Your task to perform on an android device: uninstall "Upside-Cash back on gas & food" Image 0: 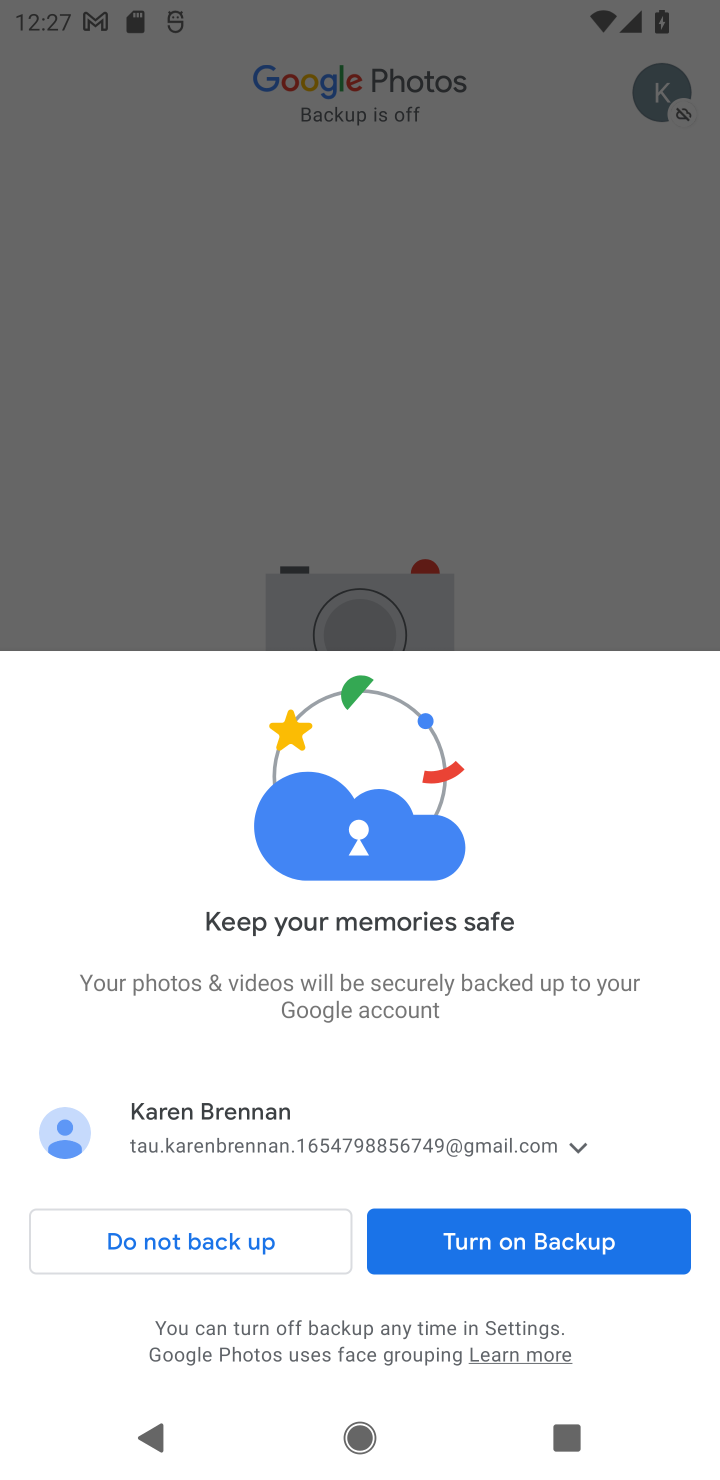
Step 0: press home button
Your task to perform on an android device: uninstall "Upside-Cash back on gas & food" Image 1: 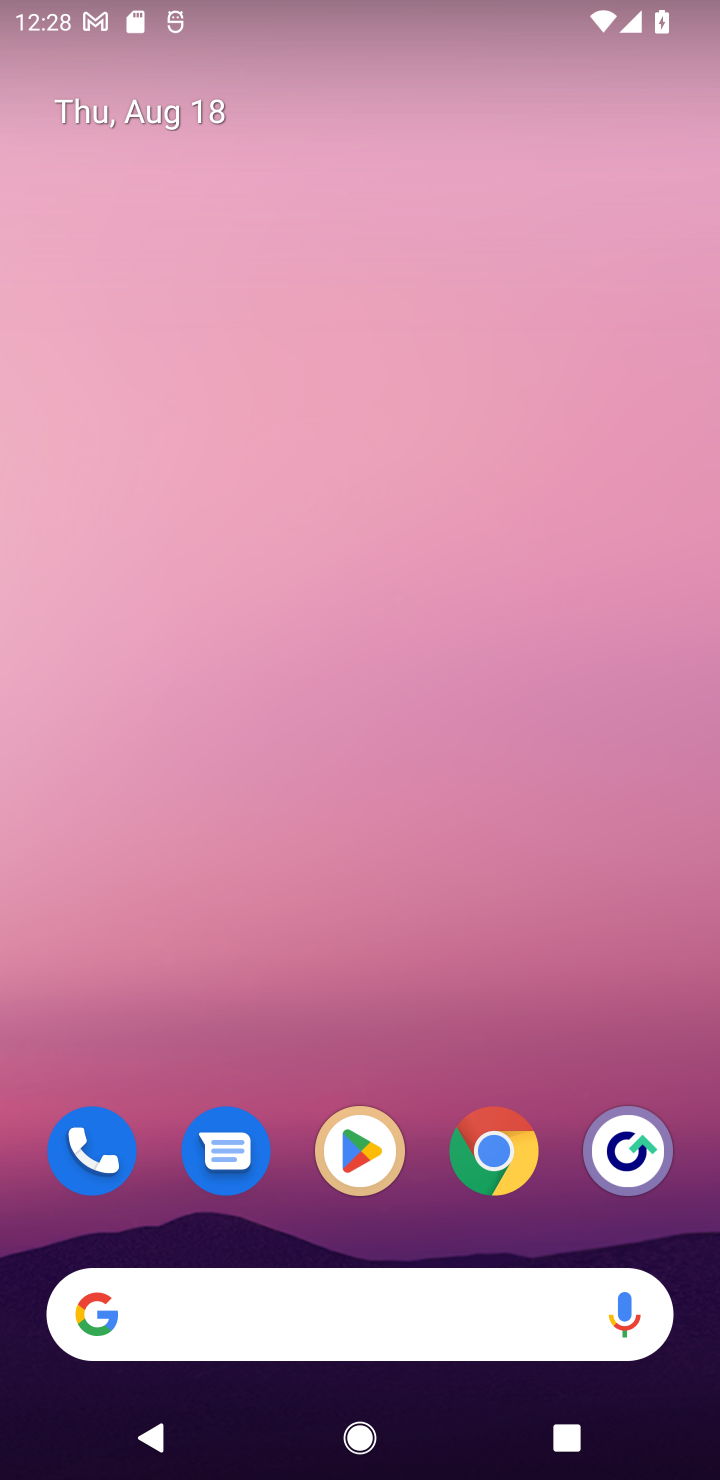
Step 1: click (362, 1160)
Your task to perform on an android device: uninstall "Upside-Cash back on gas & food" Image 2: 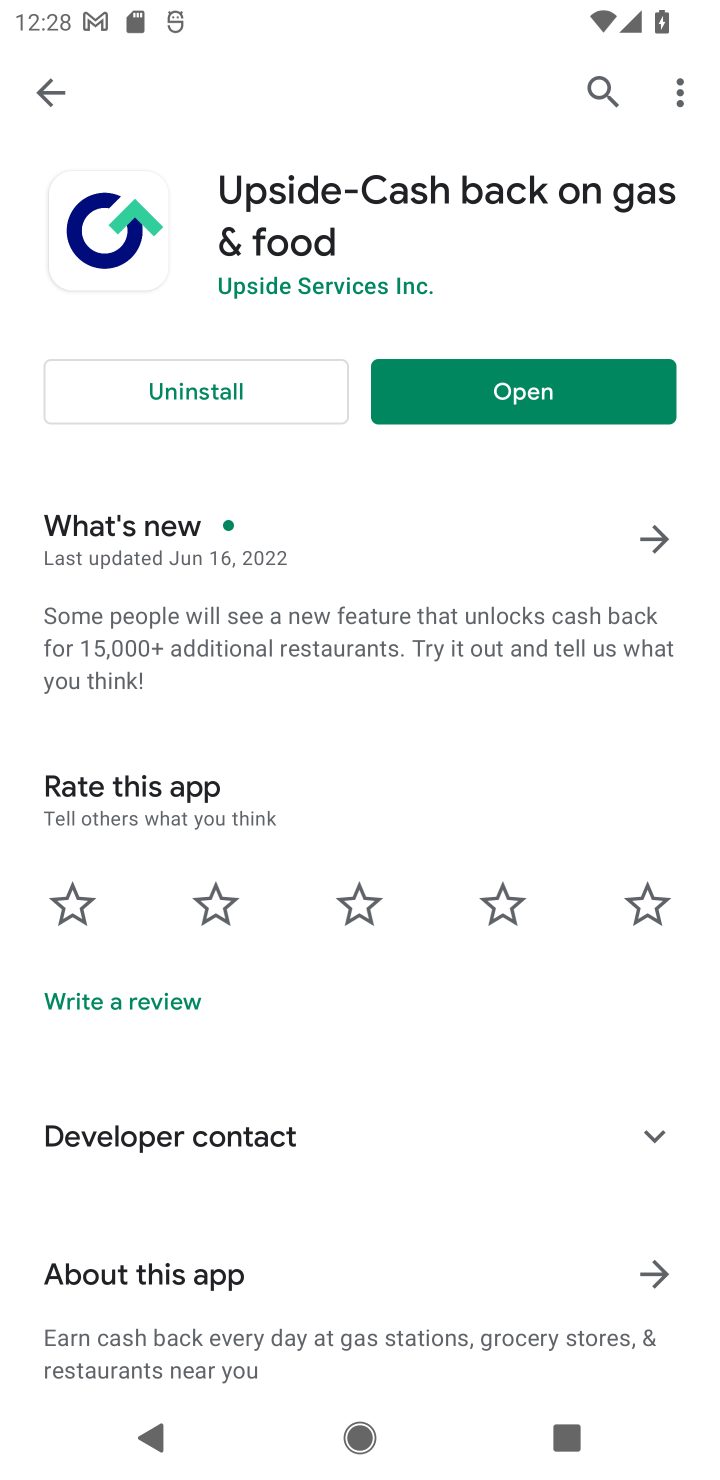
Step 2: click (46, 92)
Your task to perform on an android device: uninstall "Upside-Cash back on gas & food" Image 3: 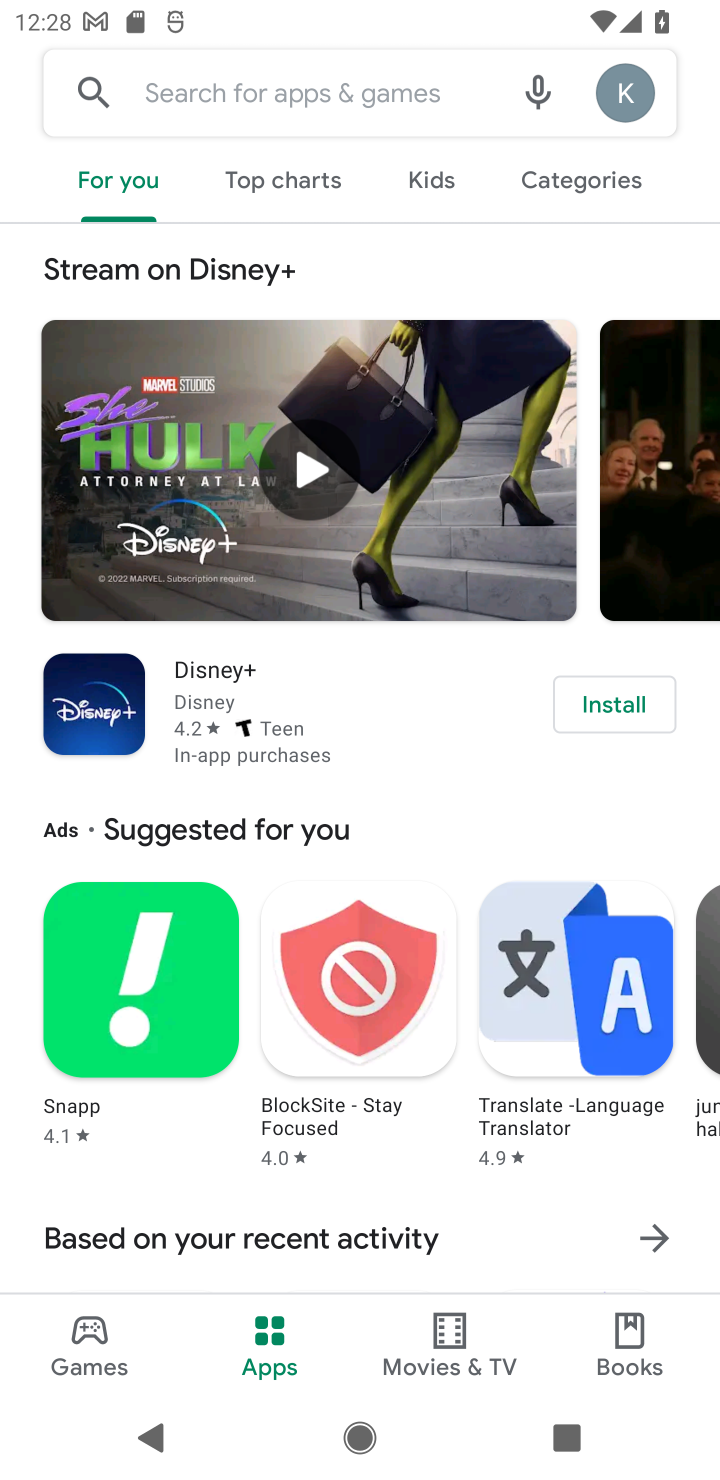
Step 3: click (286, 97)
Your task to perform on an android device: uninstall "Upside-Cash back on gas & food" Image 4: 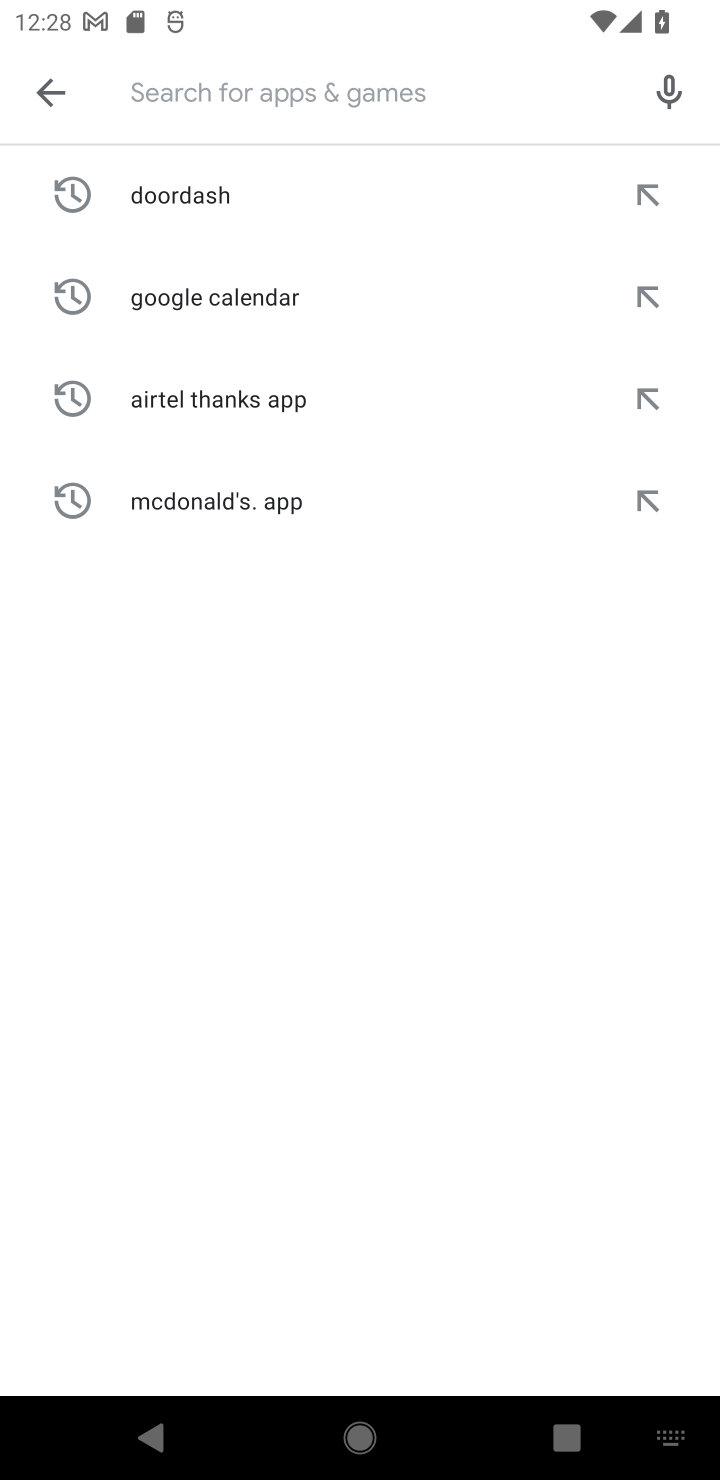
Step 4: type "Upside-Cash back on gas & food"
Your task to perform on an android device: uninstall "Upside-Cash back on gas & food" Image 5: 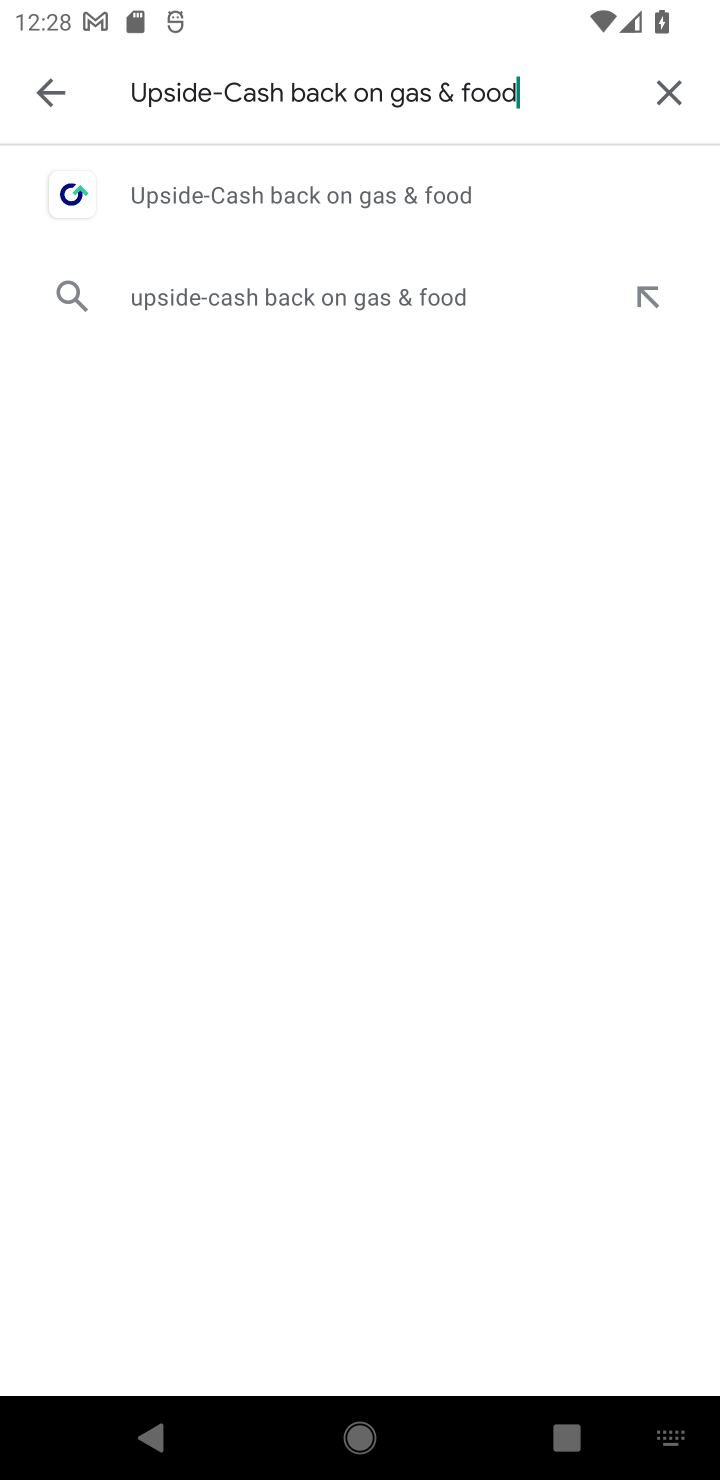
Step 5: click (362, 198)
Your task to perform on an android device: uninstall "Upside-Cash back on gas & food" Image 6: 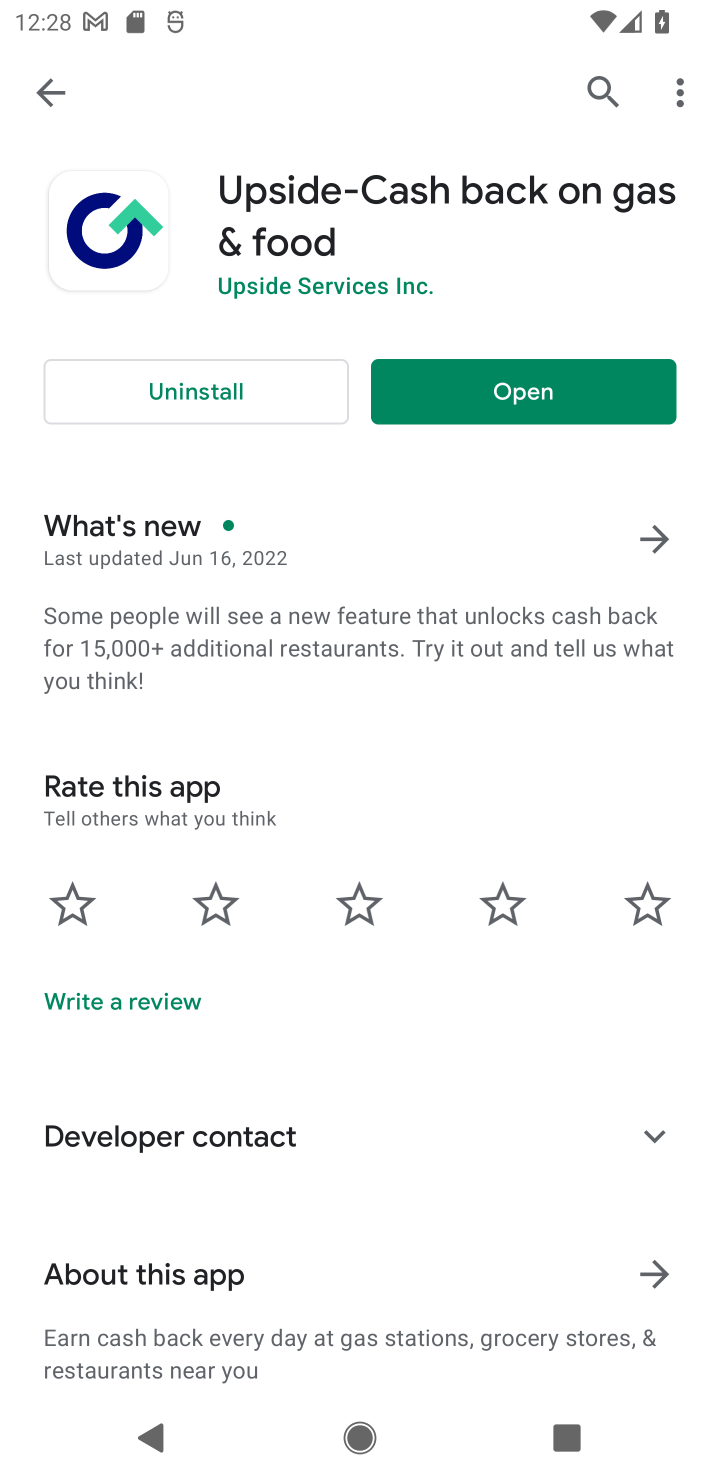
Step 6: click (276, 388)
Your task to perform on an android device: uninstall "Upside-Cash back on gas & food" Image 7: 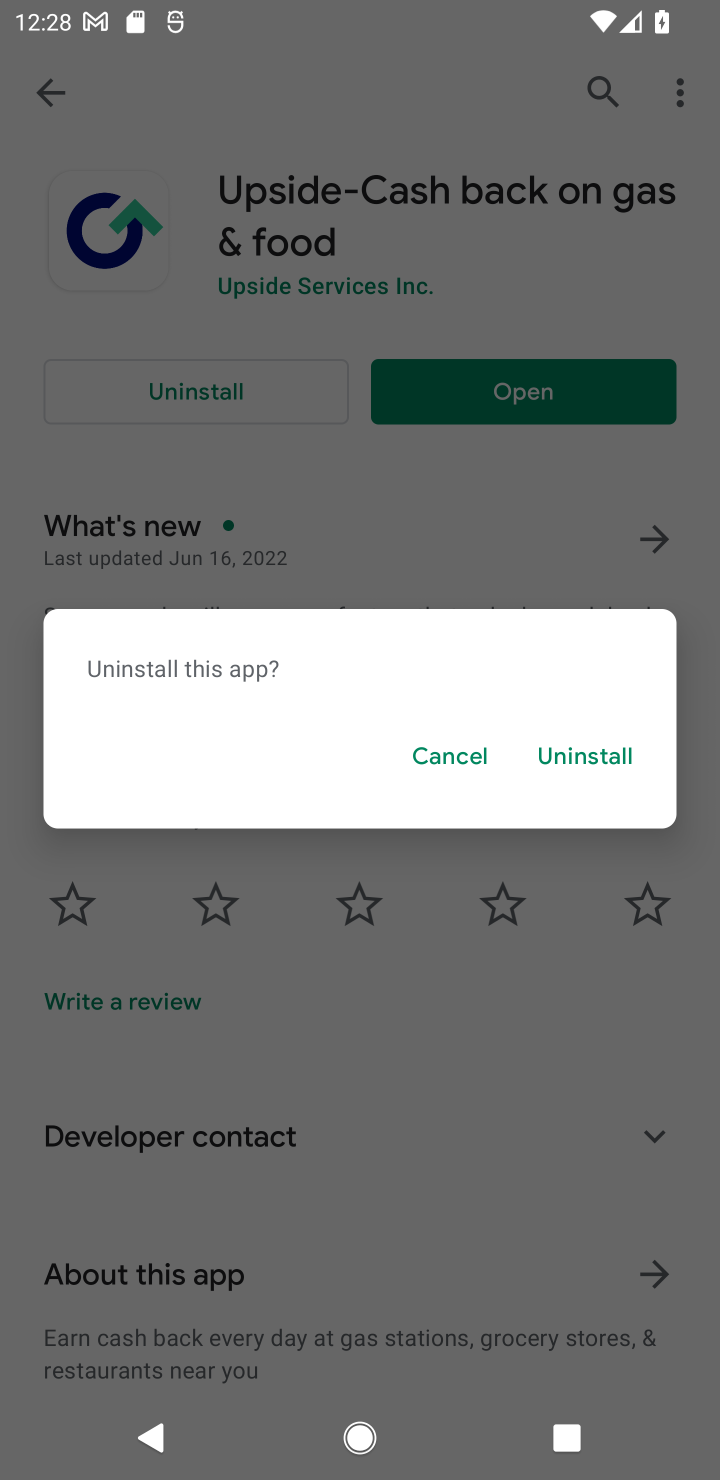
Step 7: click (577, 768)
Your task to perform on an android device: uninstall "Upside-Cash back on gas & food" Image 8: 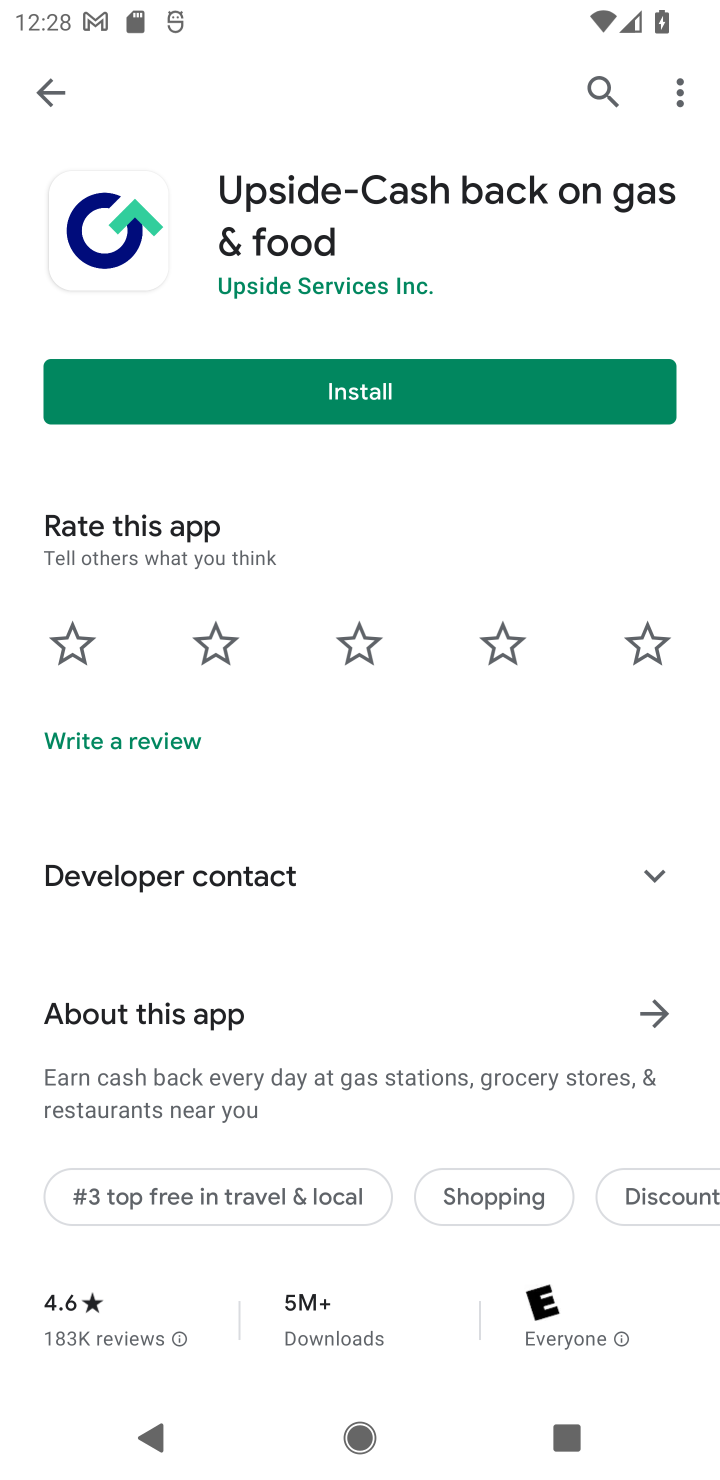
Step 8: task complete